Your task to perform on an android device: Go to Wikipedia Image 0: 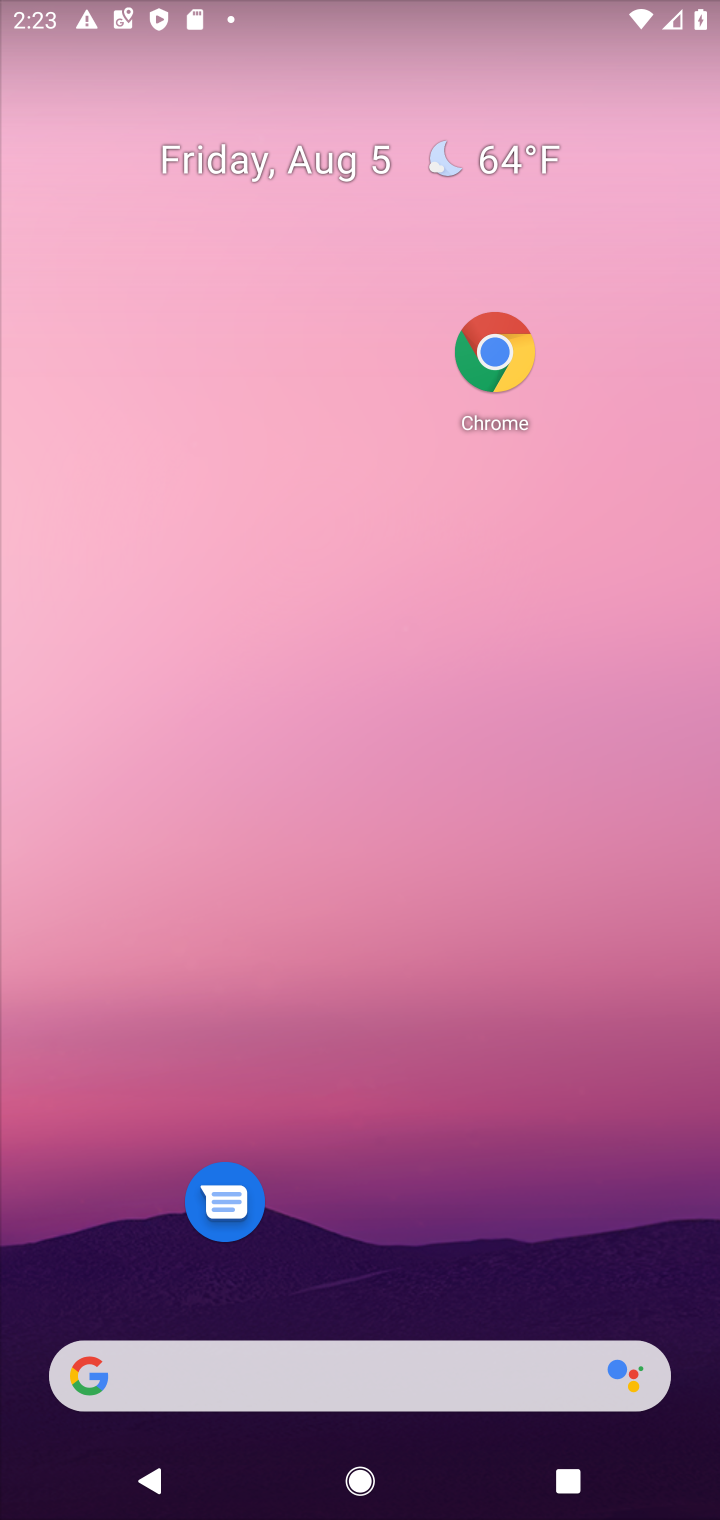
Step 0: drag from (541, 1283) to (489, 158)
Your task to perform on an android device: Go to Wikipedia Image 1: 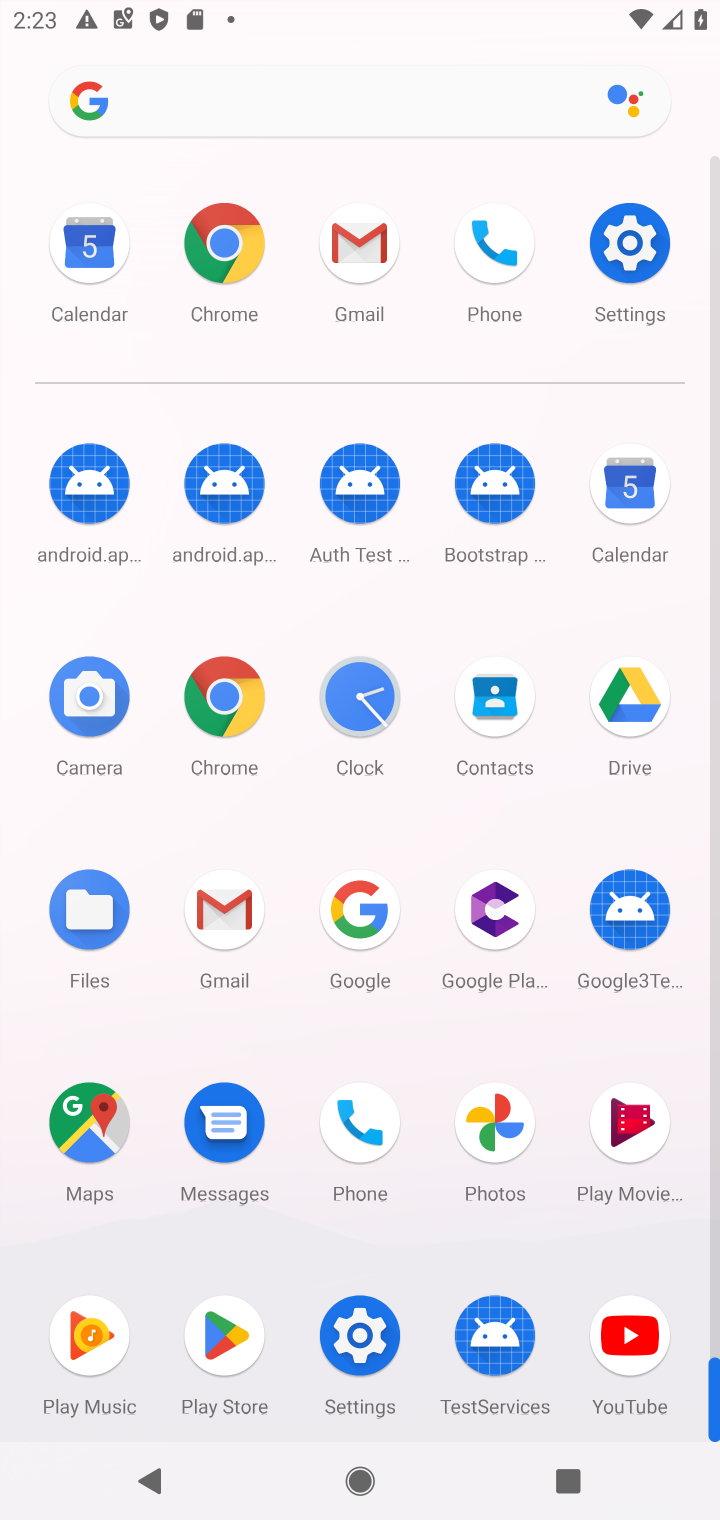
Step 1: click (211, 693)
Your task to perform on an android device: Go to Wikipedia Image 2: 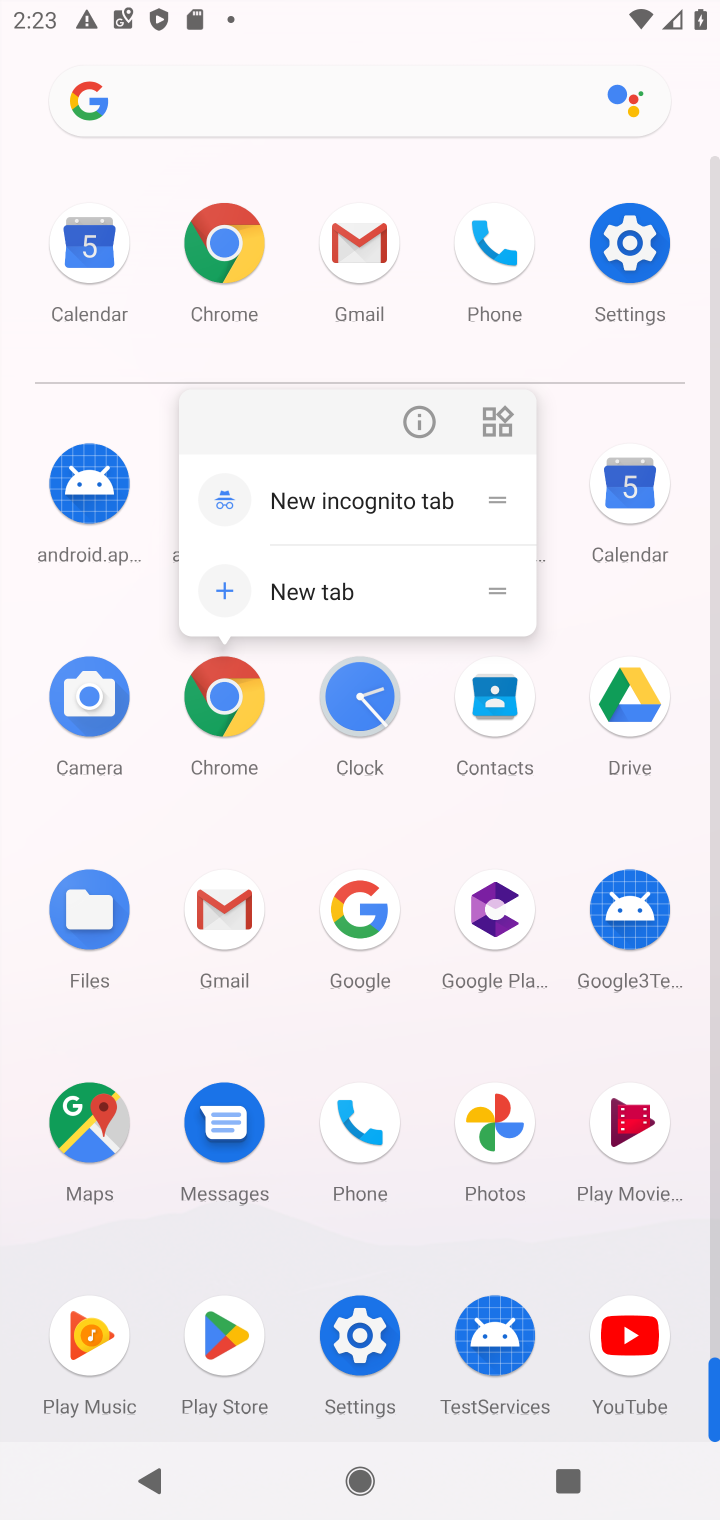
Step 2: click (223, 689)
Your task to perform on an android device: Go to Wikipedia Image 3: 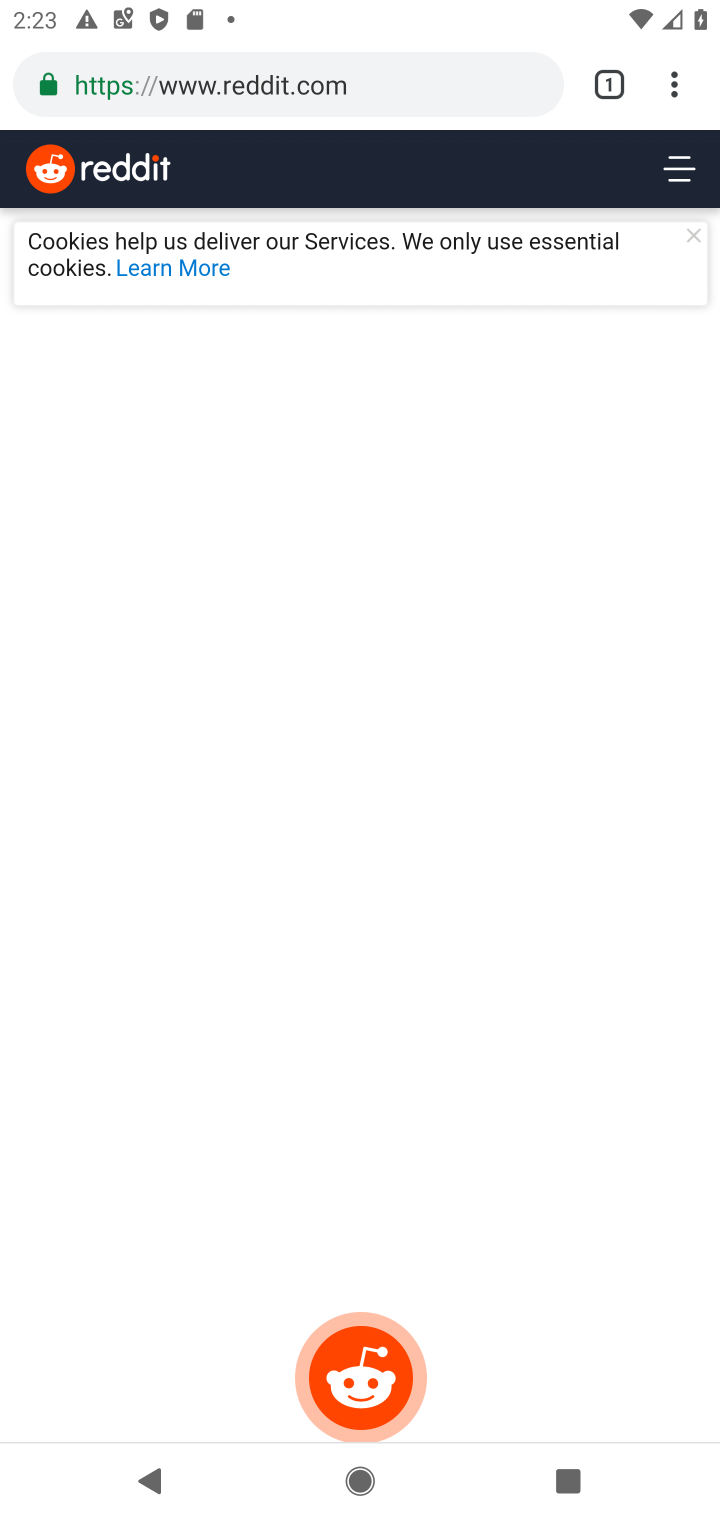
Step 3: click (394, 73)
Your task to perform on an android device: Go to Wikipedia Image 4: 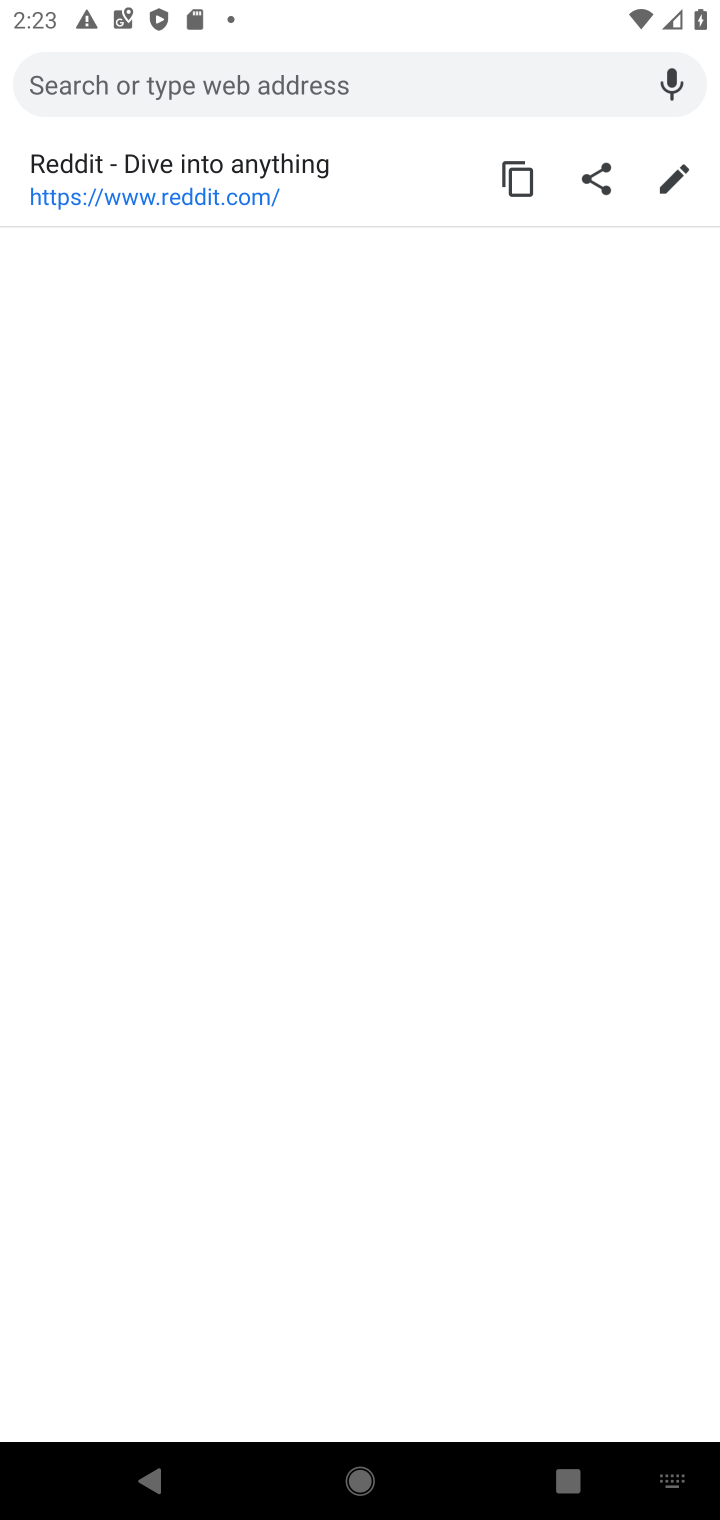
Step 4: type "wikipedia"
Your task to perform on an android device: Go to Wikipedia Image 5: 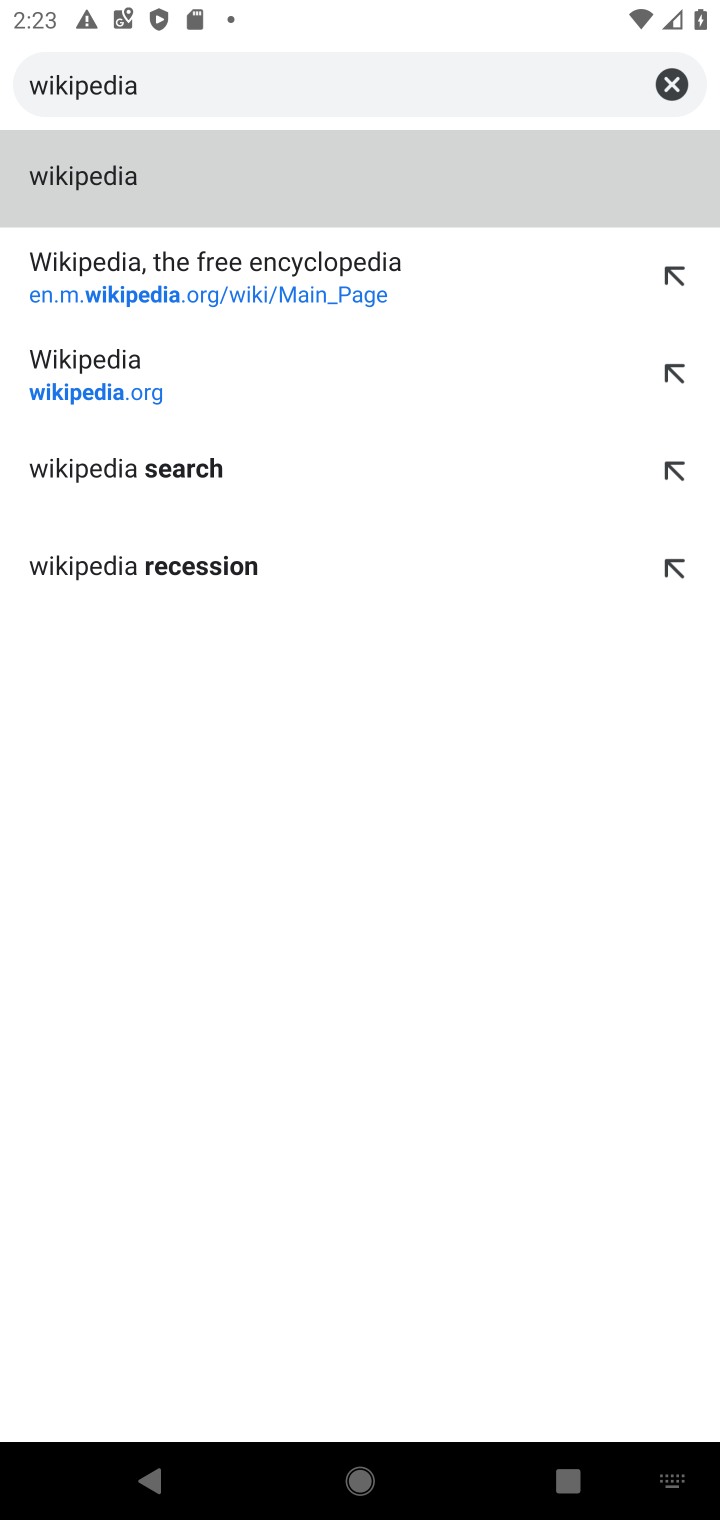
Step 5: click (119, 391)
Your task to perform on an android device: Go to Wikipedia Image 6: 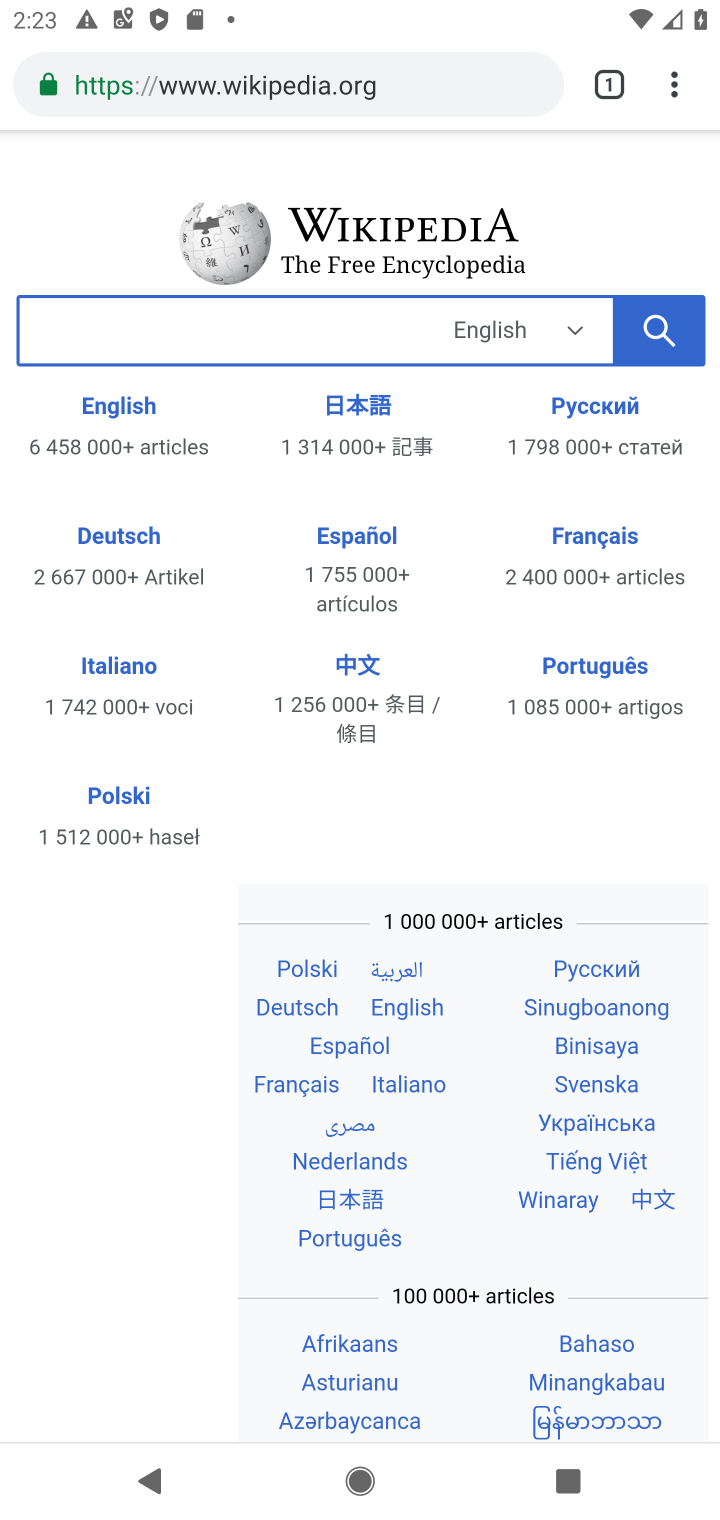
Step 6: task complete